Your task to perform on an android device: Go to Yahoo.com Image 0: 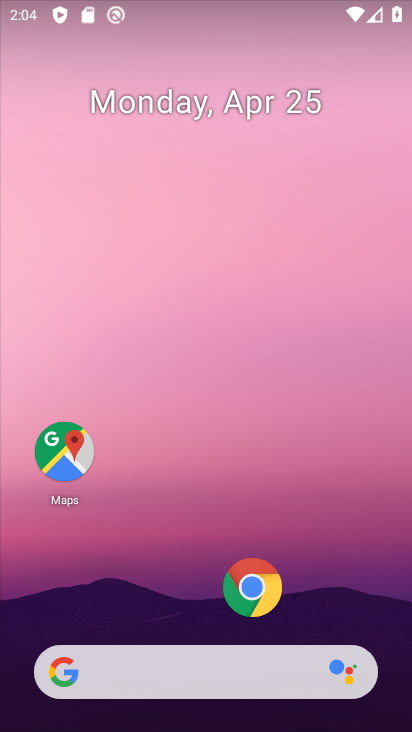
Step 0: press home button
Your task to perform on an android device: Go to Yahoo.com Image 1: 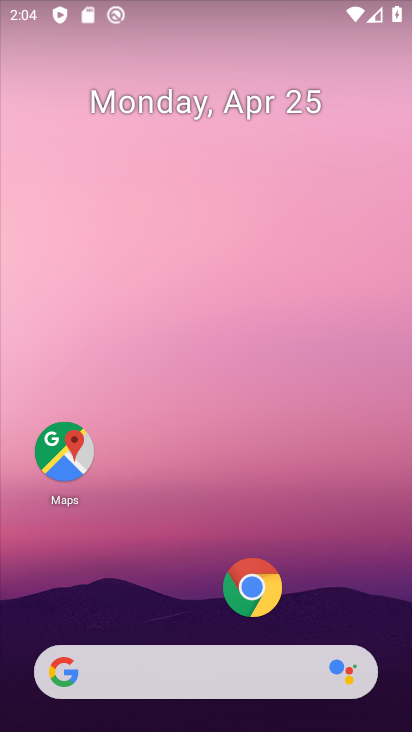
Step 1: click (248, 587)
Your task to perform on an android device: Go to Yahoo.com Image 2: 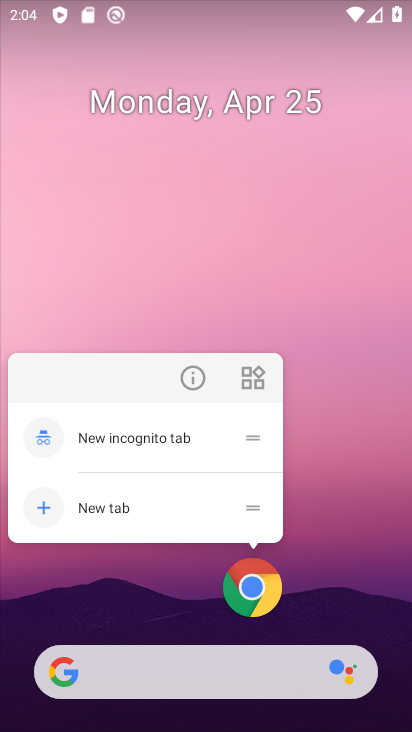
Step 2: click (252, 586)
Your task to perform on an android device: Go to Yahoo.com Image 3: 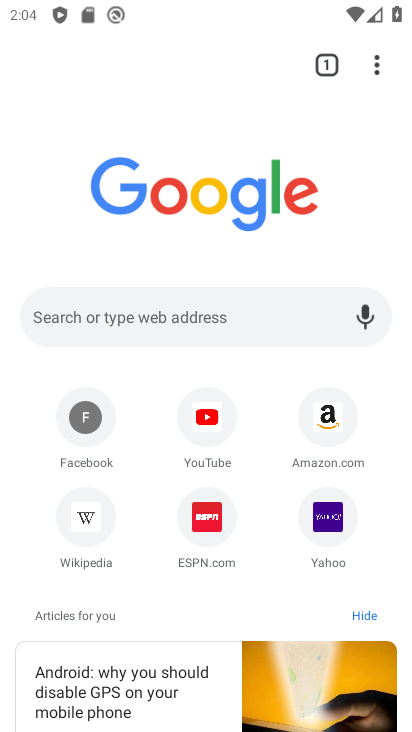
Step 3: click (322, 523)
Your task to perform on an android device: Go to Yahoo.com Image 4: 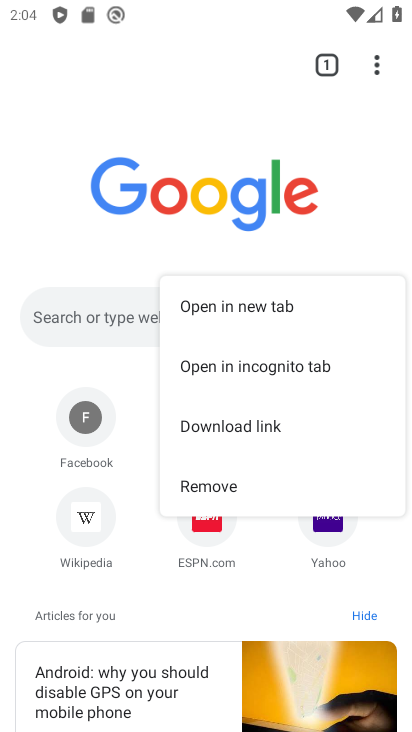
Step 4: click (252, 587)
Your task to perform on an android device: Go to Yahoo.com Image 5: 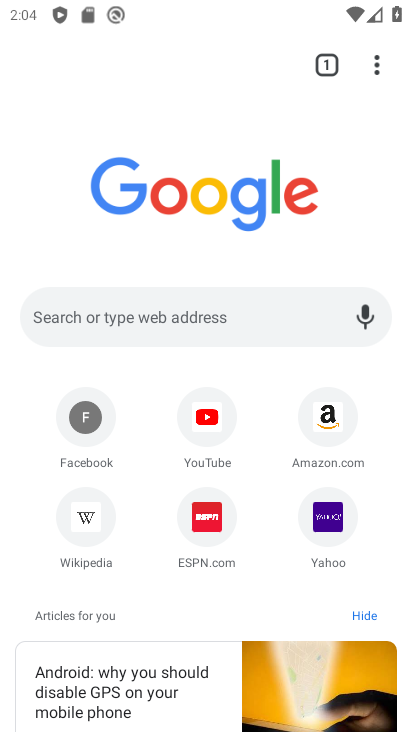
Step 5: click (322, 538)
Your task to perform on an android device: Go to Yahoo.com Image 6: 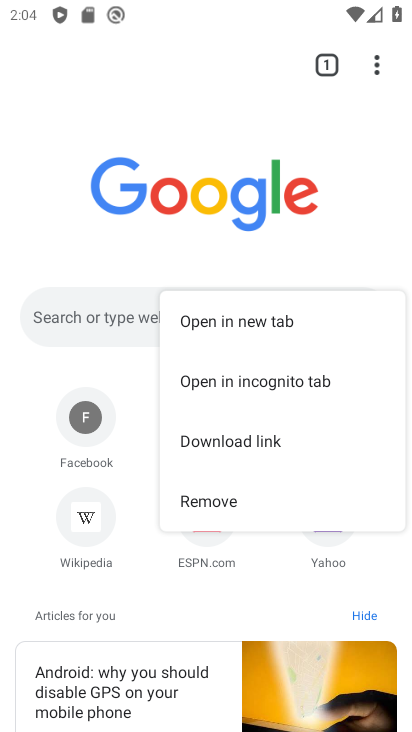
Step 6: click (244, 558)
Your task to perform on an android device: Go to Yahoo.com Image 7: 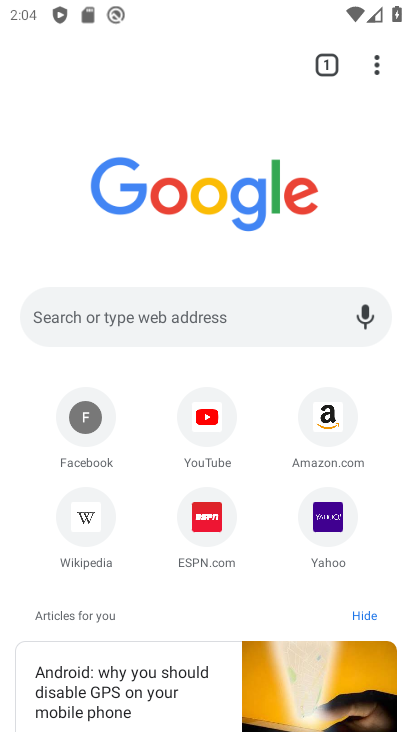
Step 7: click (328, 509)
Your task to perform on an android device: Go to Yahoo.com Image 8: 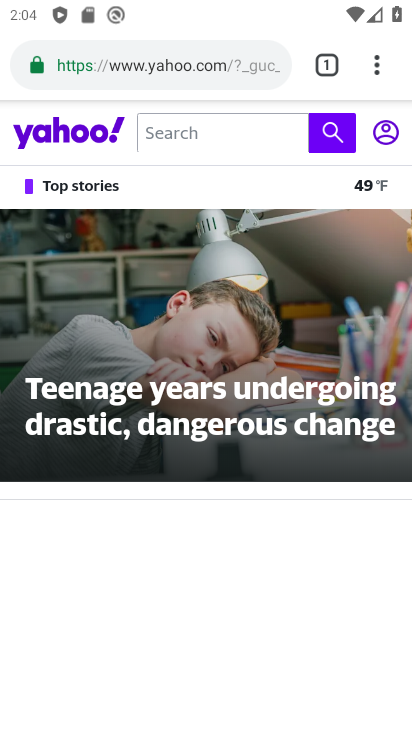
Step 8: task complete